Your task to perform on an android device: turn off location Image 0: 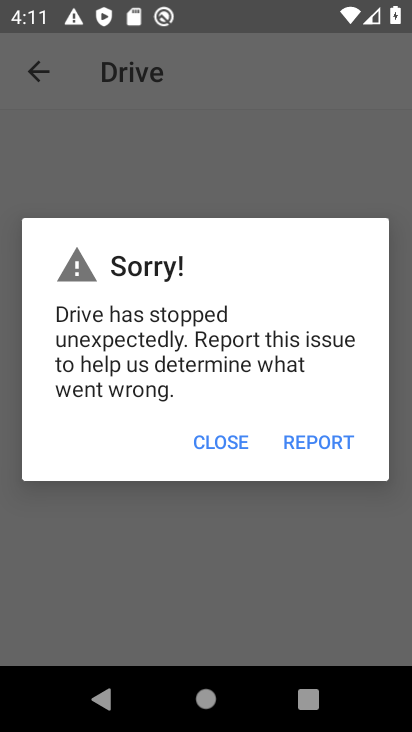
Step 0: click (212, 451)
Your task to perform on an android device: turn off location Image 1: 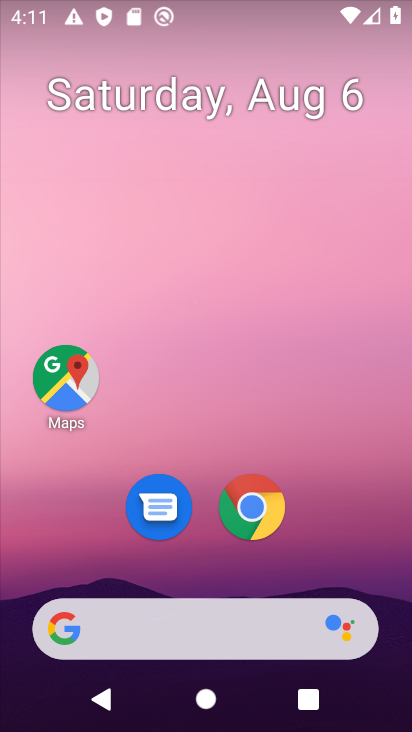
Step 1: drag from (220, 346) to (217, 93)
Your task to perform on an android device: turn off location Image 2: 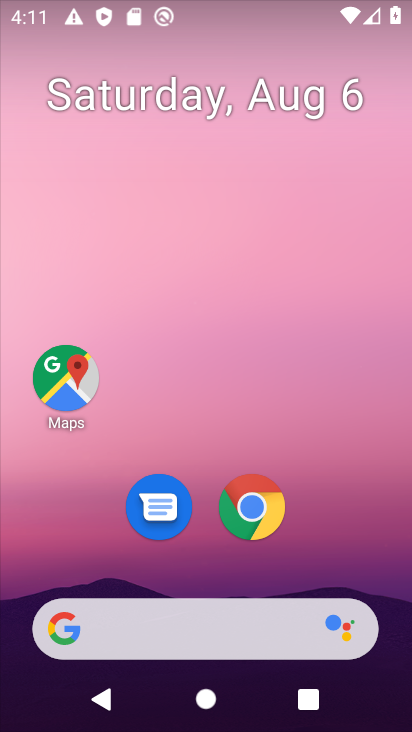
Step 2: drag from (226, 447) to (252, 53)
Your task to perform on an android device: turn off location Image 3: 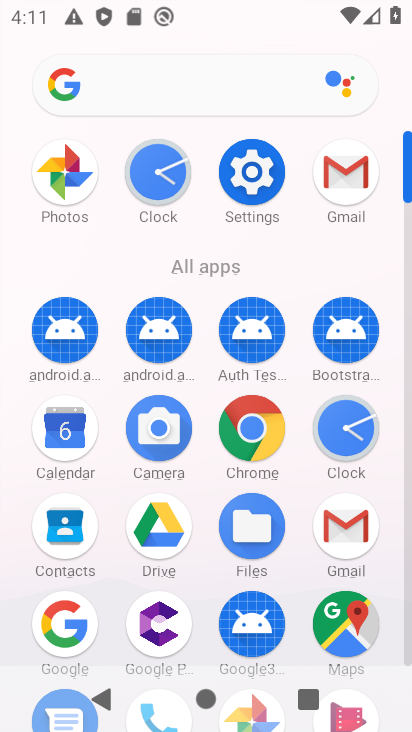
Step 3: click (255, 182)
Your task to perform on an android device: turn off location Image 4: 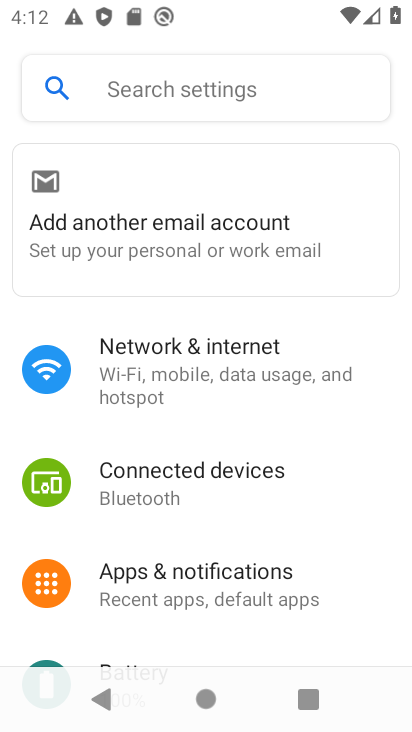
Step 4: drag from (203, 553) to (203, 258)
Your task to perform on an android device: turn off location Image 5: 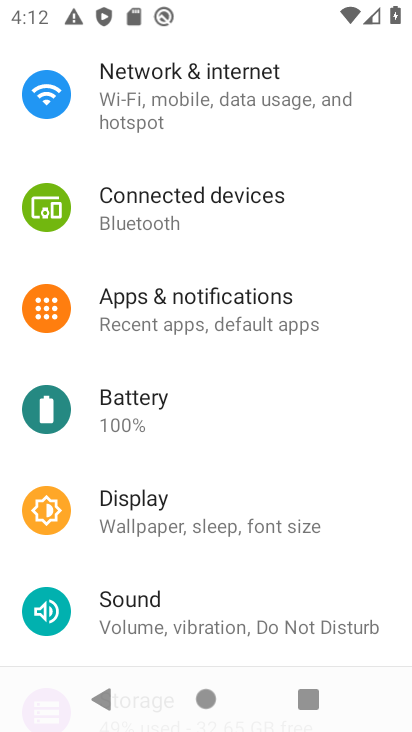
Step 5: drag from (206, 509) to (255, 213)
Your task to perform on an android device: turn off location Image 6: 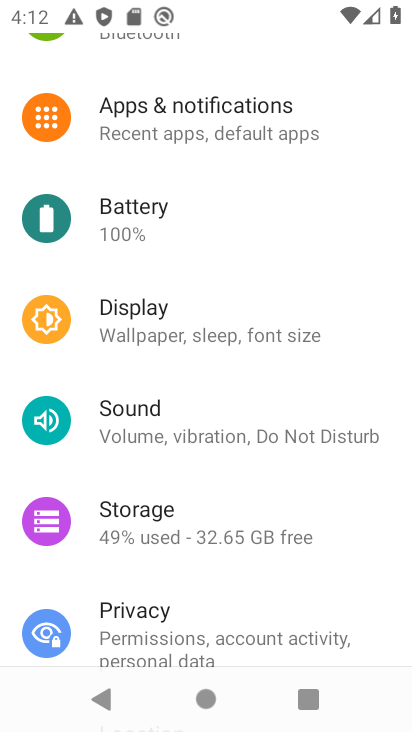
Step 6: drag from (243, 528) to (251, 200)
Your task to perform on an android device: turn off location Image 7: 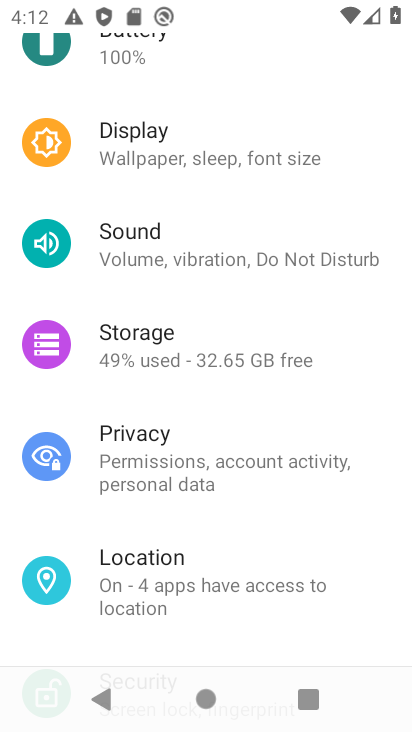
Step 7: click (165, 559)
Your task to perform on an android device: turn off location Image 8: 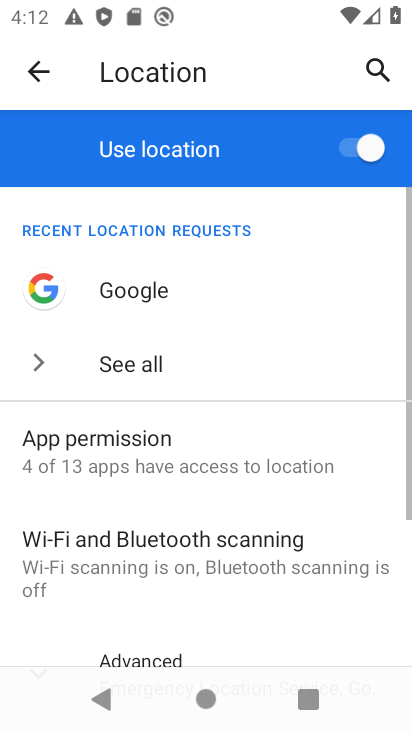
Step 8: task complete